Your task to perform on an android device: change alarm snooze length Image 0: 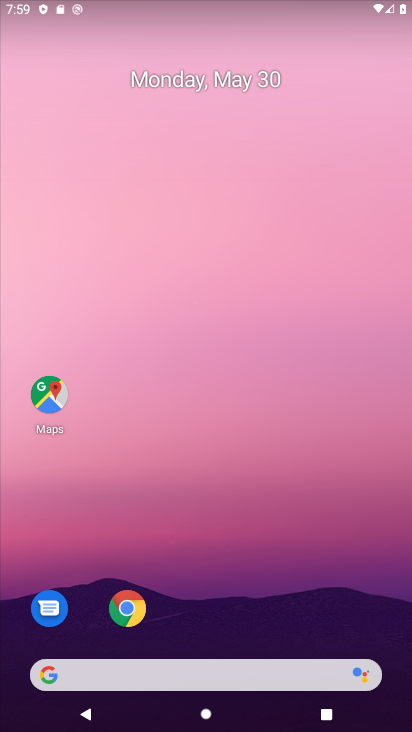
Step 0: drag from (200, 633) to (206, 201)
Your task to perform on an android device: change alarm snooze length Image 1: 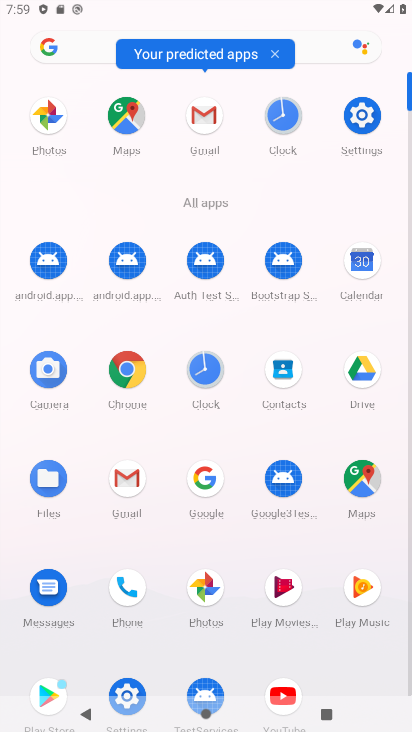
Step 1: click (281, 117)
Your task to perform on an android device: change alarm snooze length Image 2: 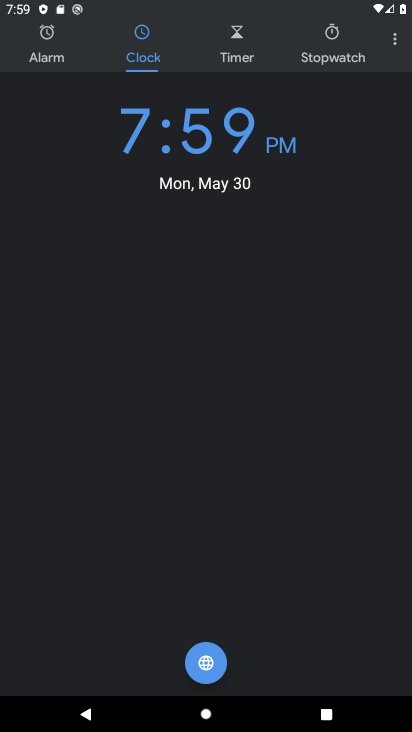
Step 2: click (390, 37)
Your task to perform on an android device: change alarm snooze length Image 3: 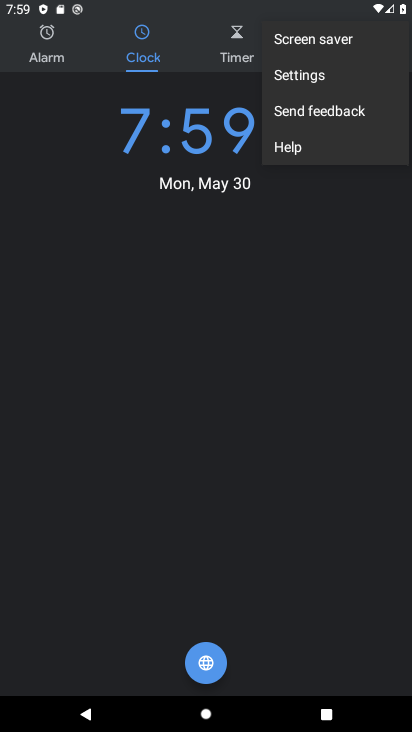
Step 3: click (316, 79)
Your task to perform on an android device: change alarm snooze length Image 4: 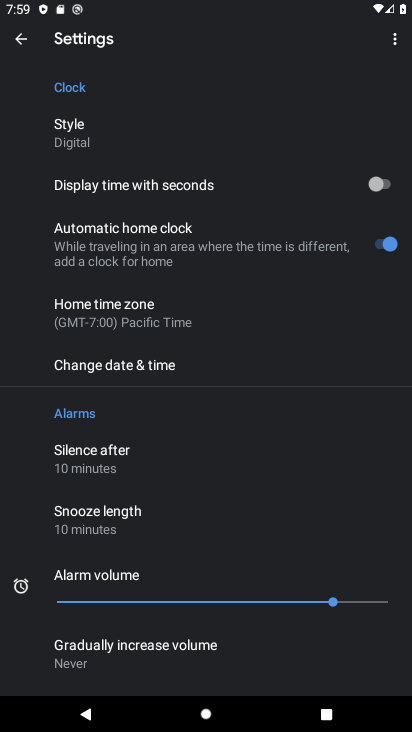
Step 4: click (136, 504)
Your task to perform on an android device: change alarm snooze length Image 5: 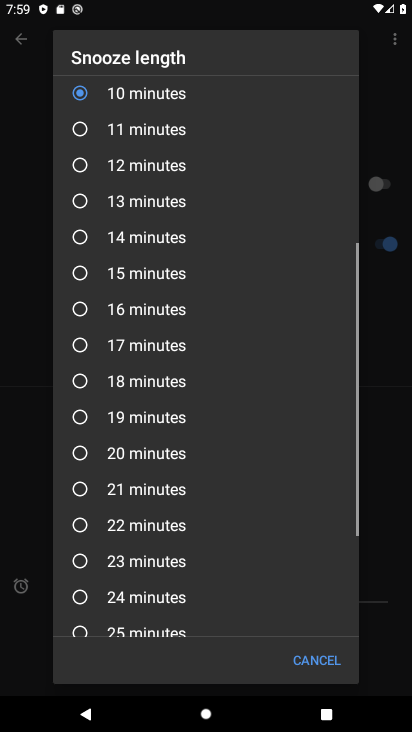
Step 5: click (146, 450)
Your task to perform on an android device: change alarm snooze length Image 6: 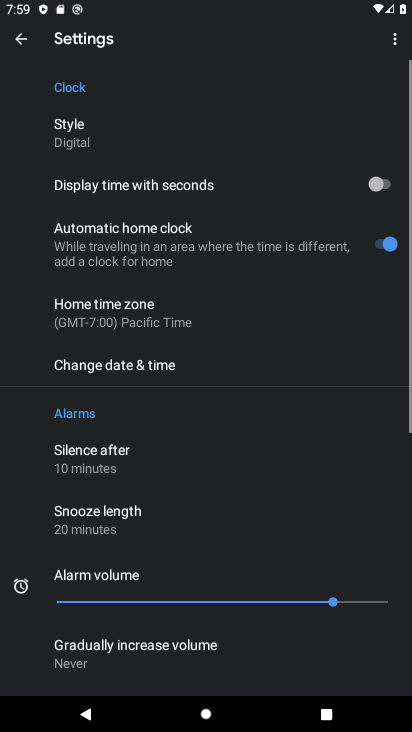
Step 6: task complete